Your task to perform on an android device: Open Youtube and go to the subscriptions tab Image 0: 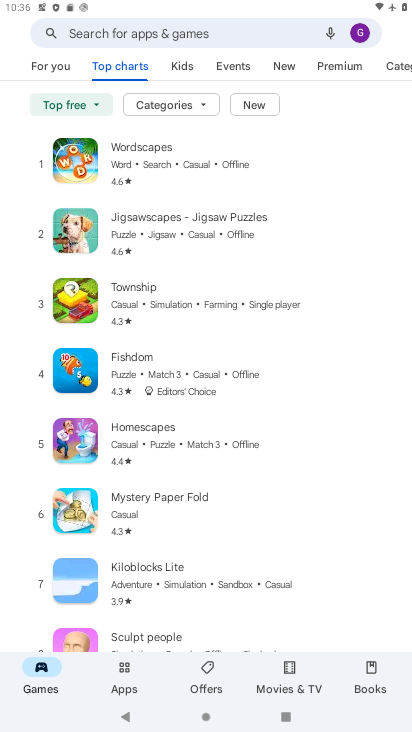
Step 0: press home button
Your task to perform on an android device: Open Youtube and go to the subscriptions tab Image 1: 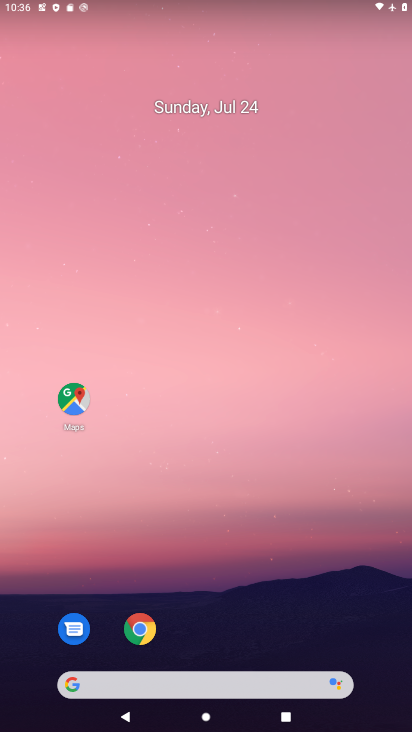
Step 1: drag from (259, 643) to (255, 245)
Your task to perform on an android device: Open Youtube and go to the subscriptions tab Image 2: 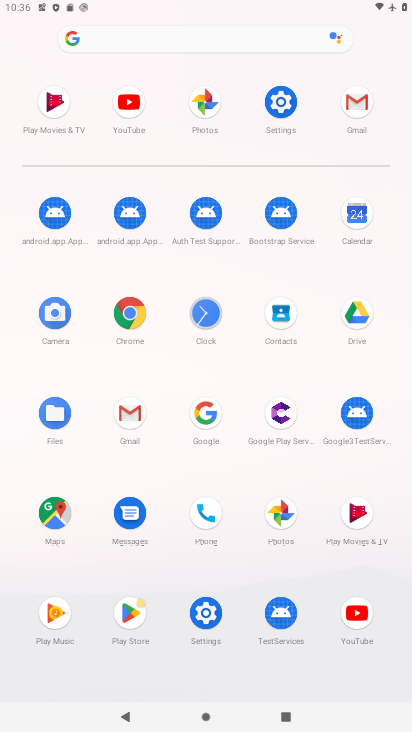
Step 2: click (124, 119)
Your task to perform on an android device: Open Youtube and go to the subscriptions tab Image 3: 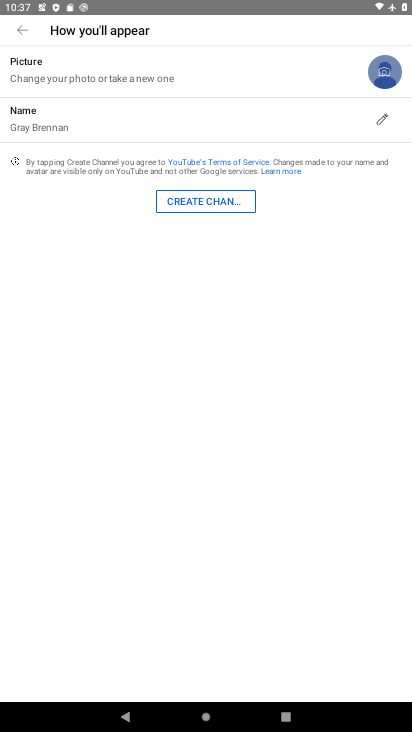
Step 3: task complete